Your task to perform on an android device: What's US dollar exchange rate against the Chinese Yuan? Image 0: 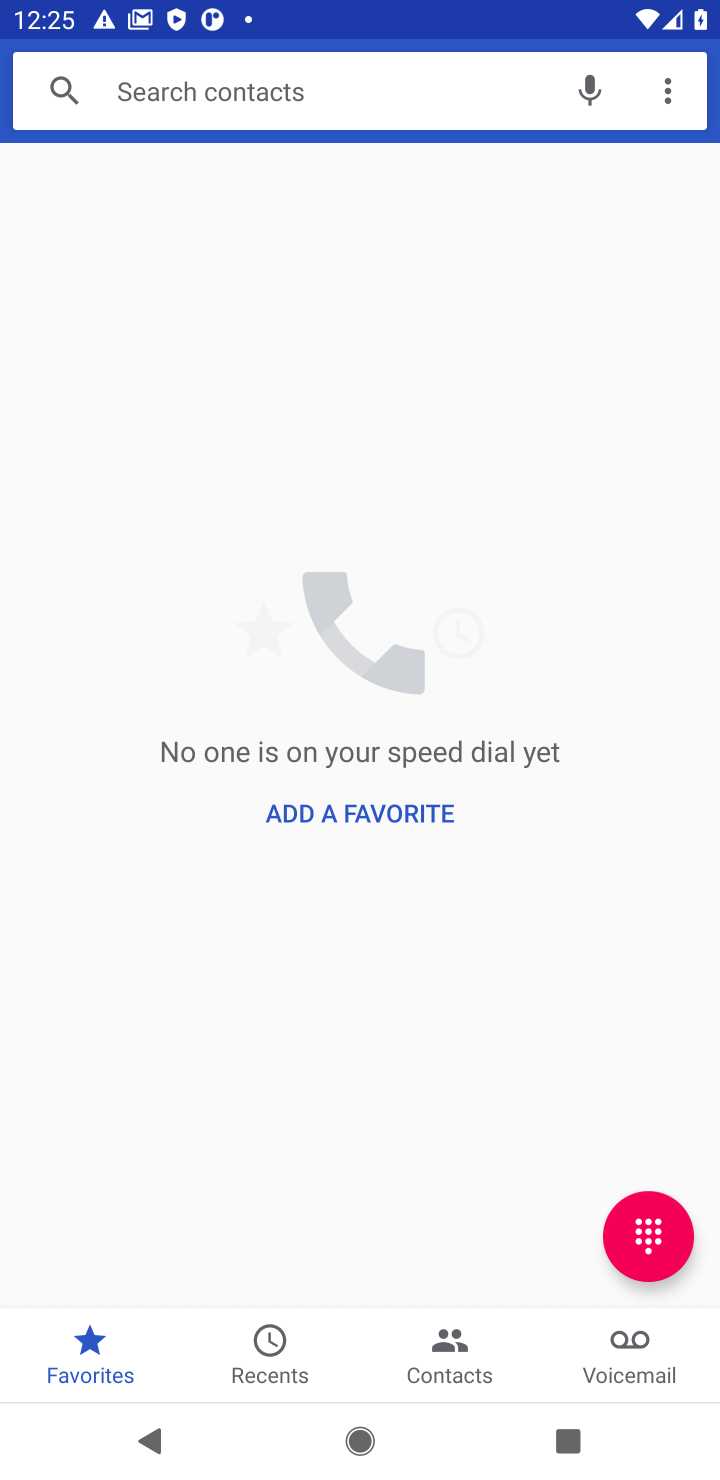
Step 0: press home button
Your task to perform on an android device: What's US dollar exchange rate against the Chinese Yuan? Image 1: 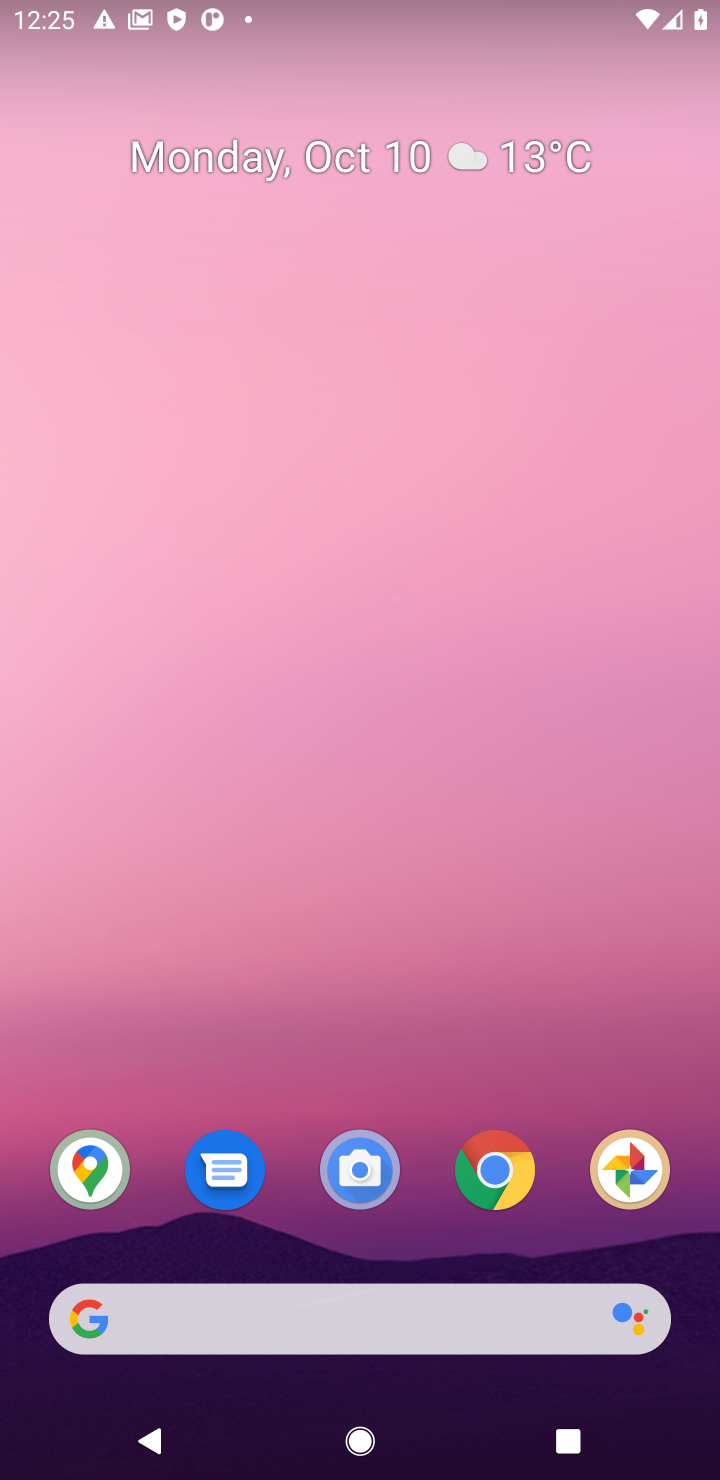
Step 1: click (497, 1177)
Your task to perform on an android device: What's US dollar exchange rate against the Chinese Yuan? Image 2: 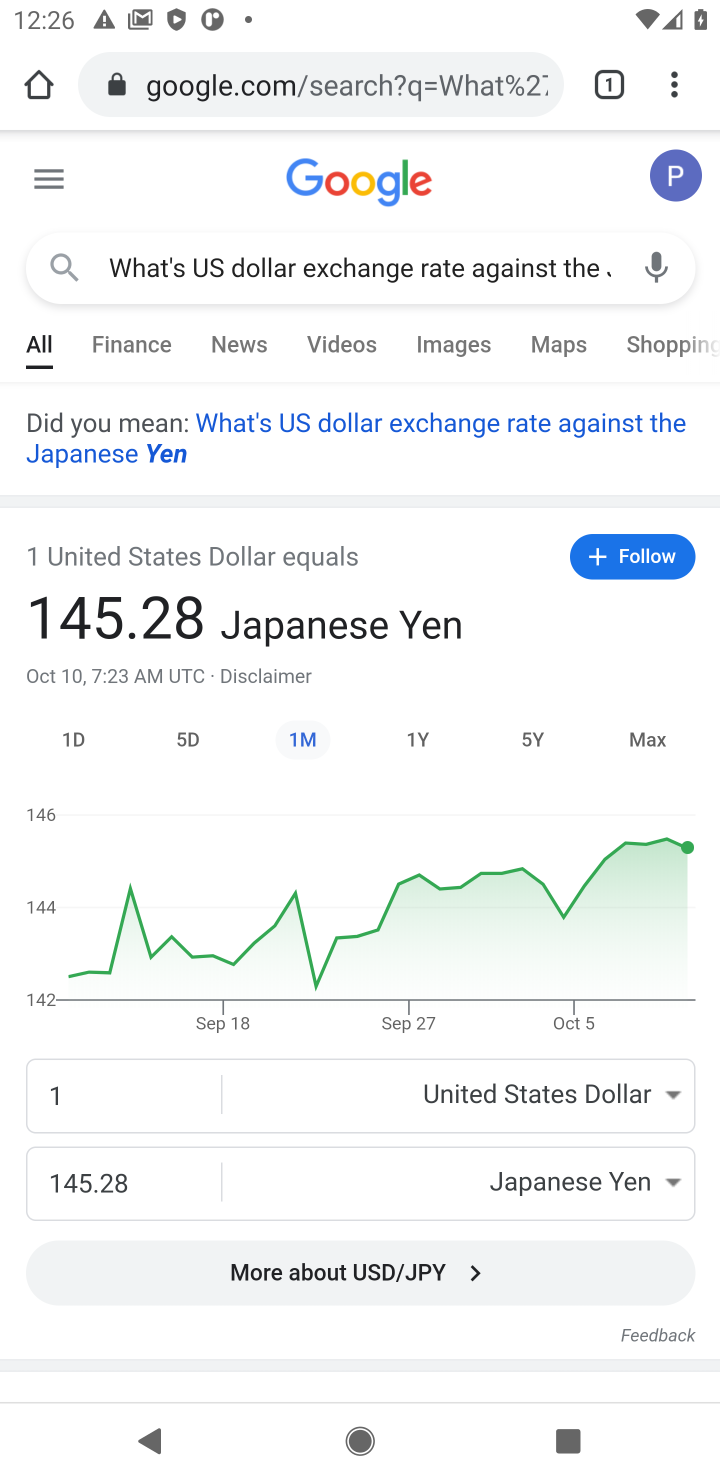
Step 2: click (646, 1172)
Your task to perform on an android device: What's US dollar exchange rate against the Chinese Yuan? Image 3: 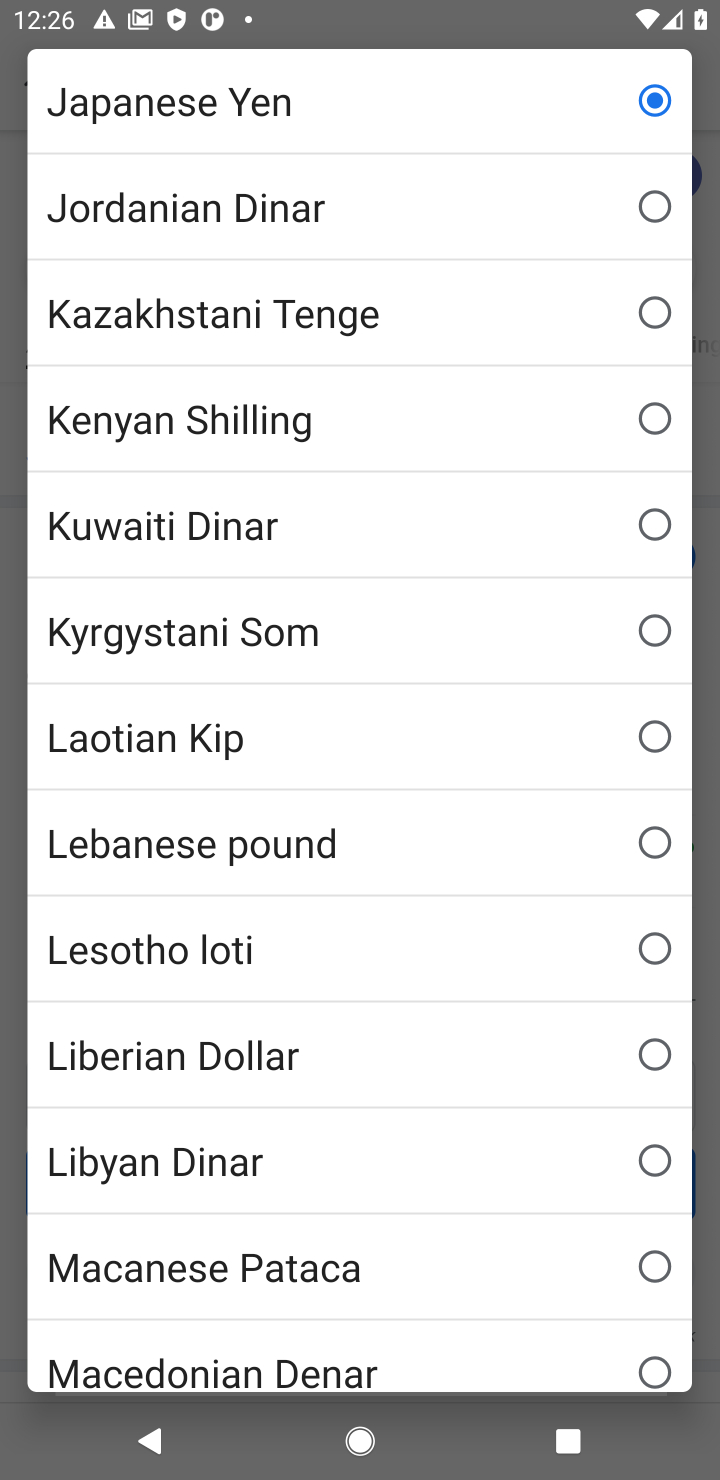
Step 3: drag from (286, 515) to (288, 956)
Your task to perform on an android device: What's US dollar exchange rate against the Chinese Yuan? Image 4: 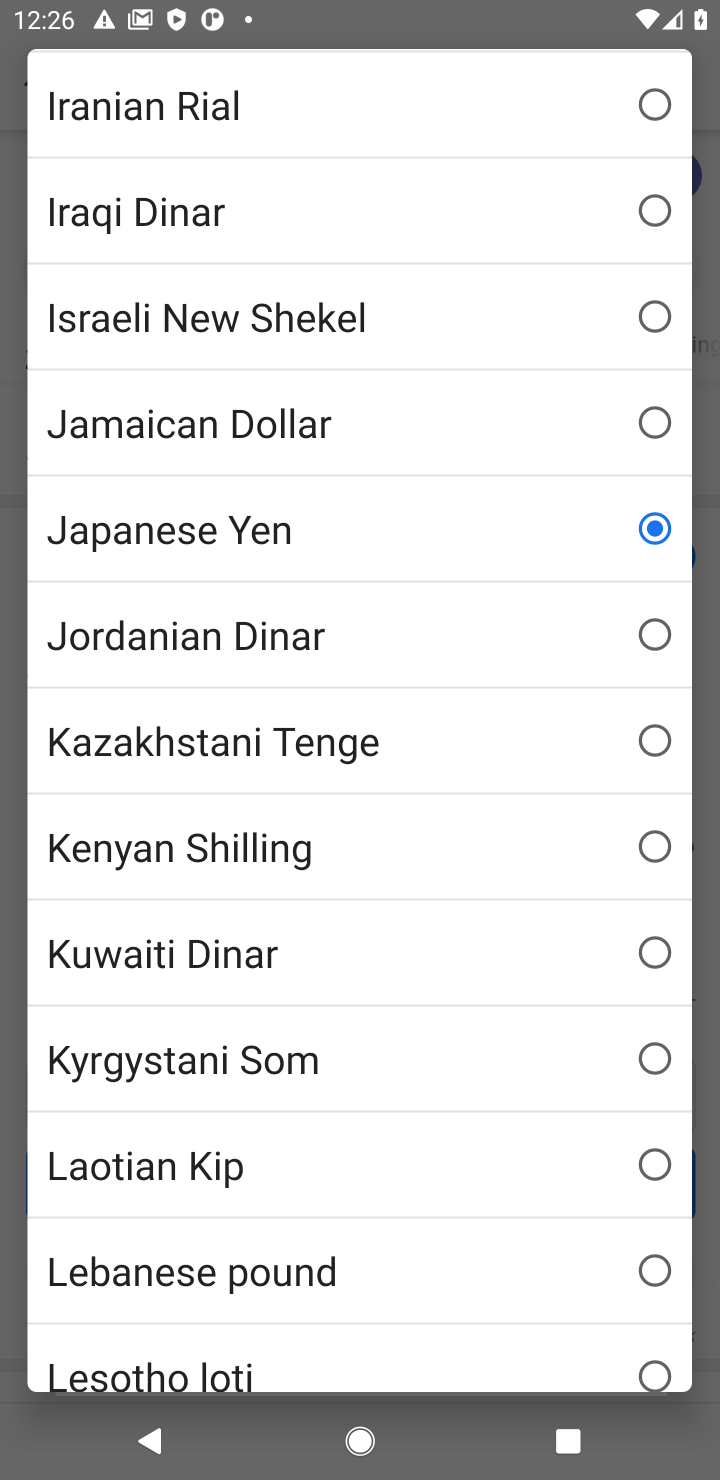
Step 4: drag from (281, 373) to (337, 864)
Your task to perform on an android device: What's US dollar exchange rate against the Chinese Yuan? Image 5: 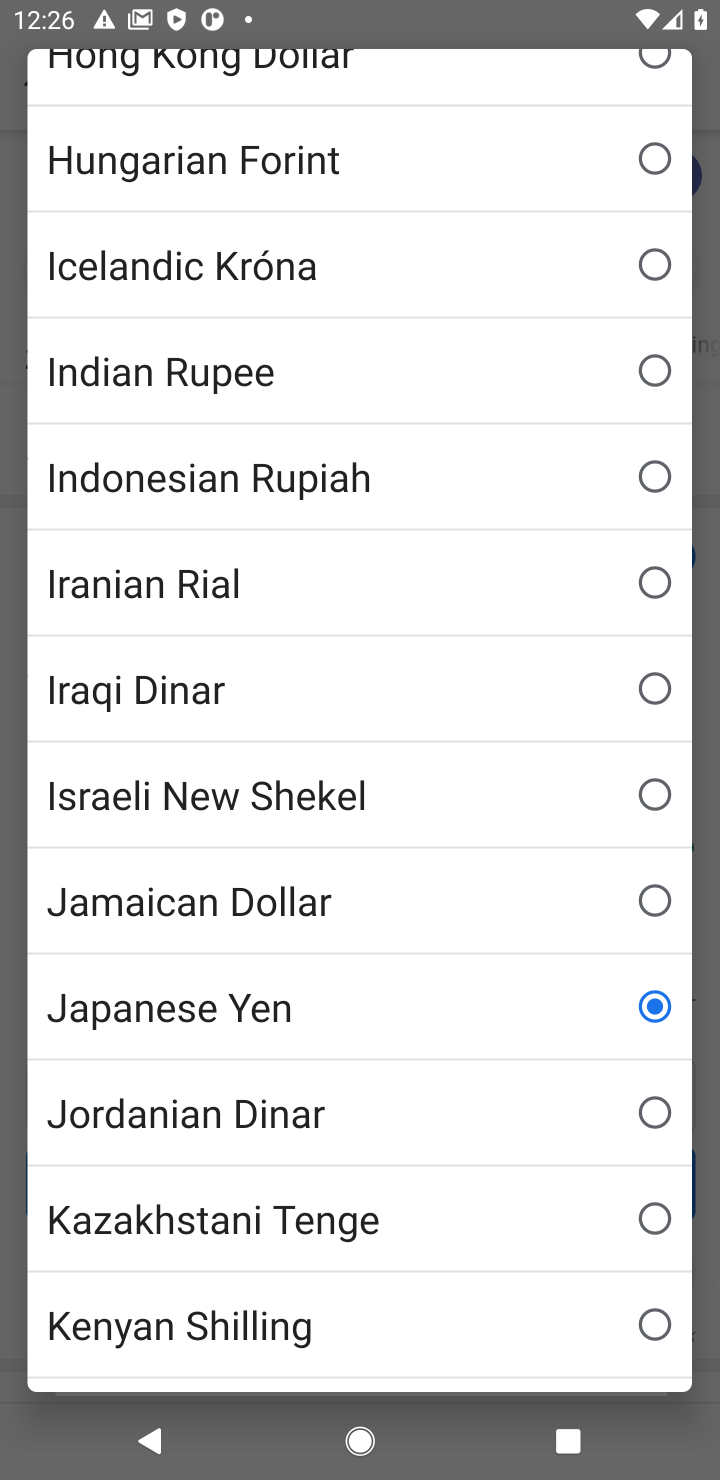
Step 5: drag from (457, 474) to (452, 874)
Your task to perform on an android device: What's US dollar exchange rate against the Chinese Yuan? Image 6: 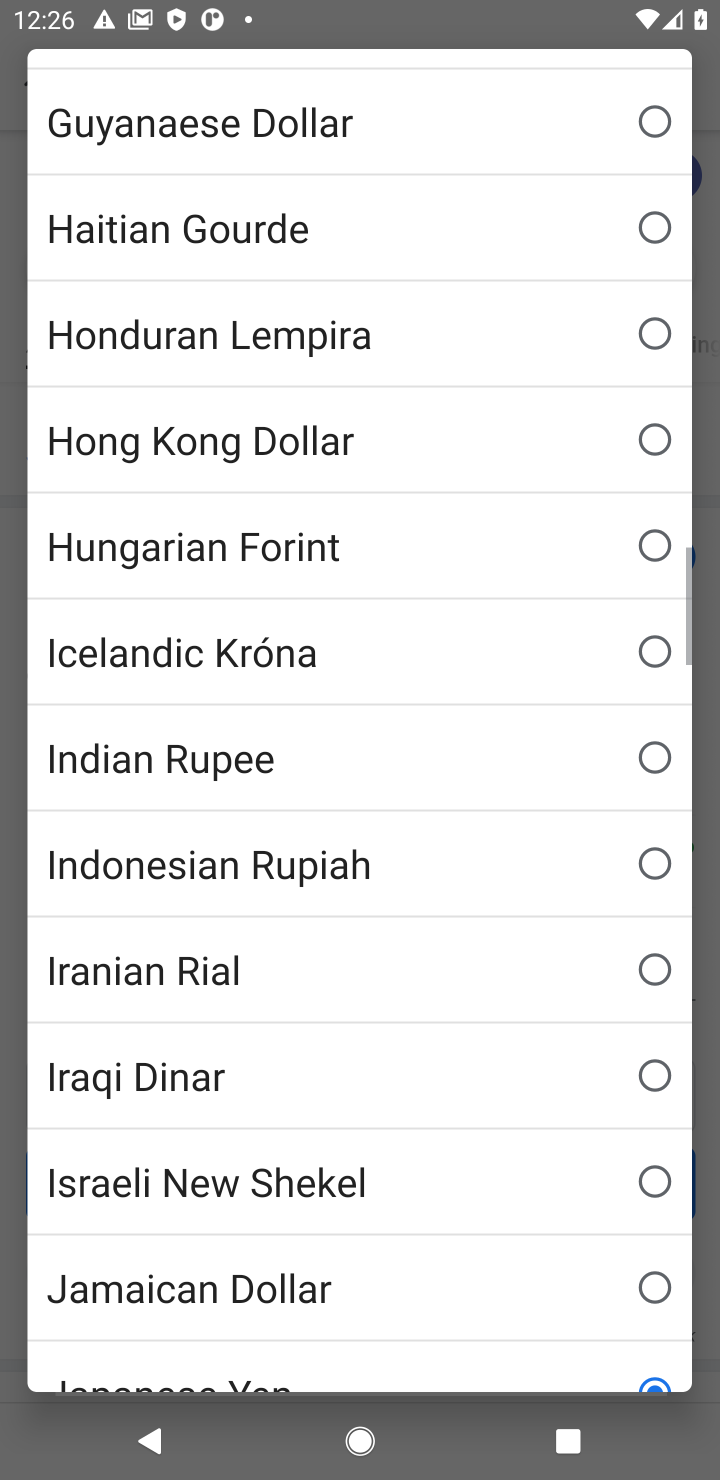
Step 6: drag from (376, 443) to (378, 650)
Your task to perform on an android device: What's US dollar exchange rate against the Chinese Yuan? Image 7: 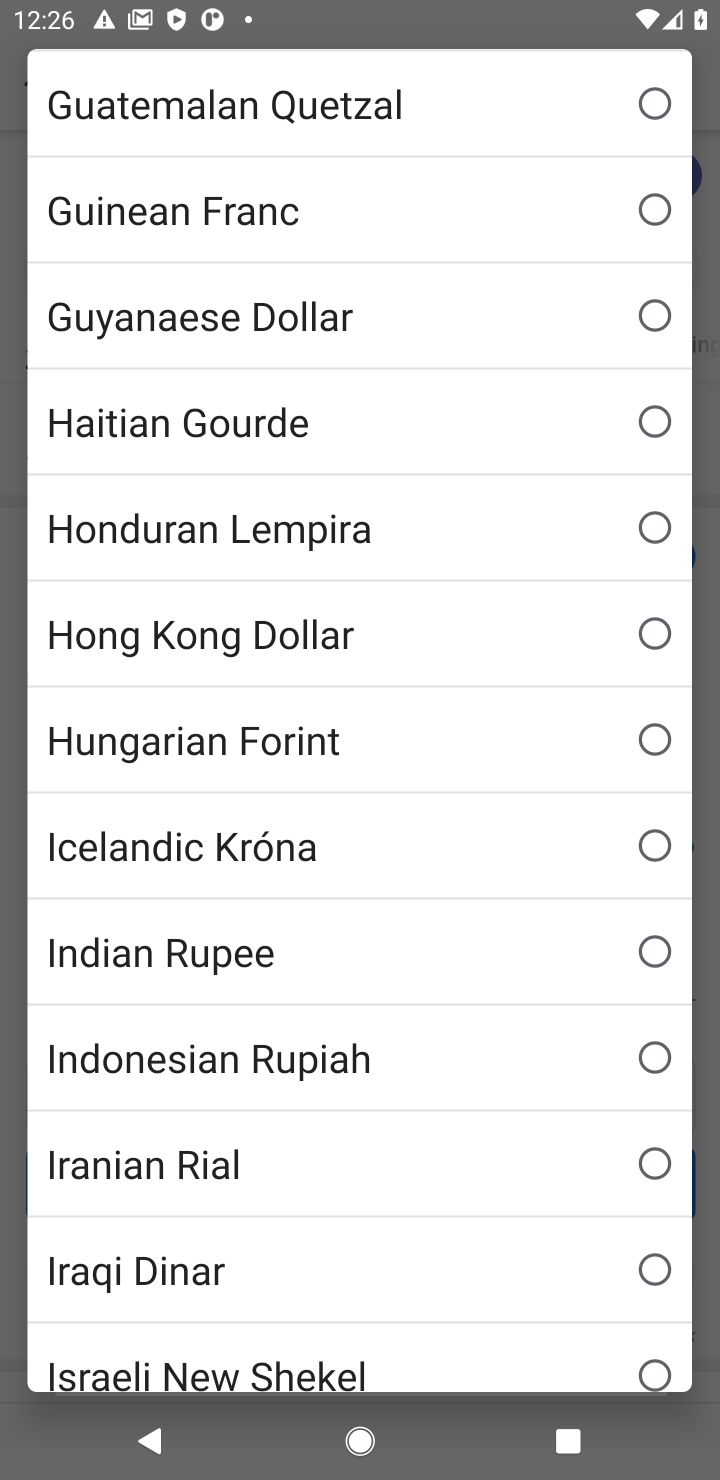
Step 7: drag from (280, 332) to (305, 660)
Your task to perform on an android device: What's US dollar exchange rate against the Chinese Yuan? Image 8: 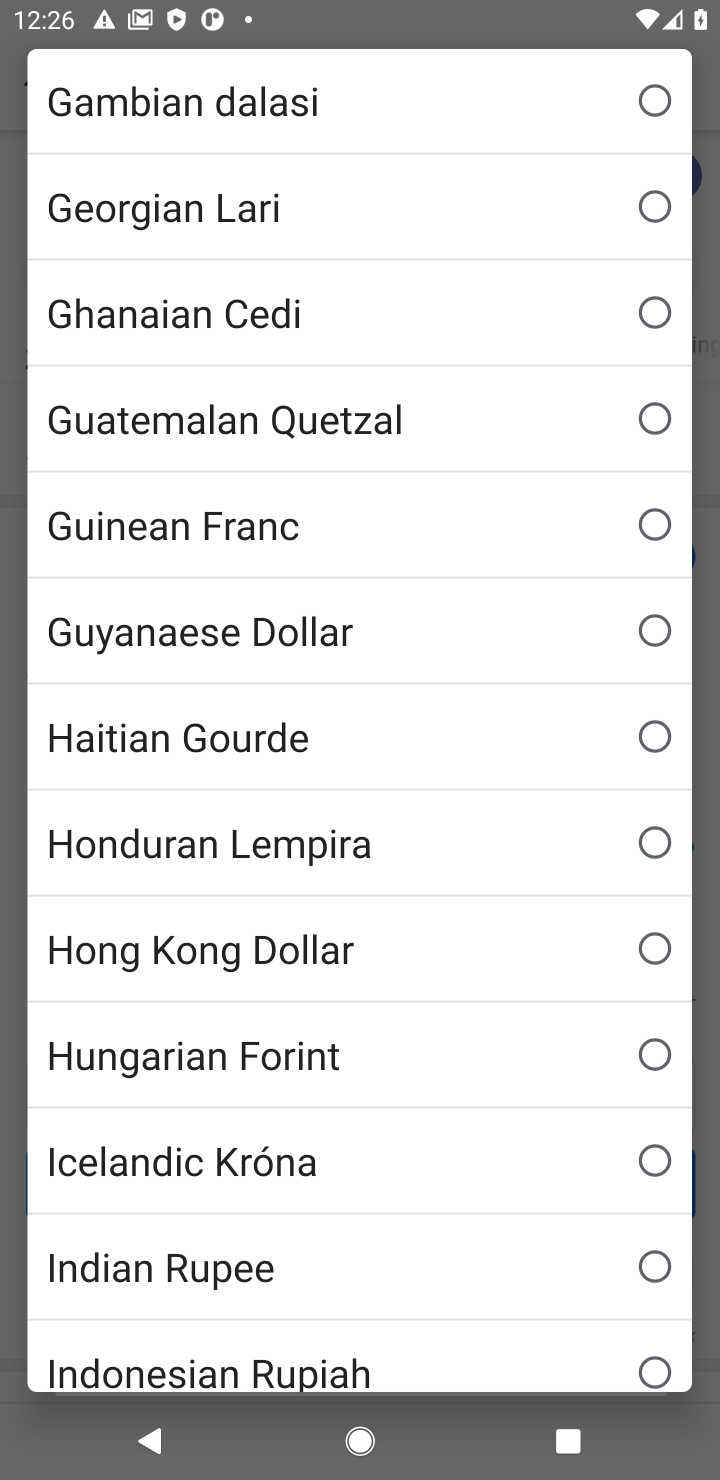
Step 8: drag from (339, 305) to (349, 698)
Your task to perform on an android device: What's US dollar exchange rate against the Chinese Yuan? Image 9: 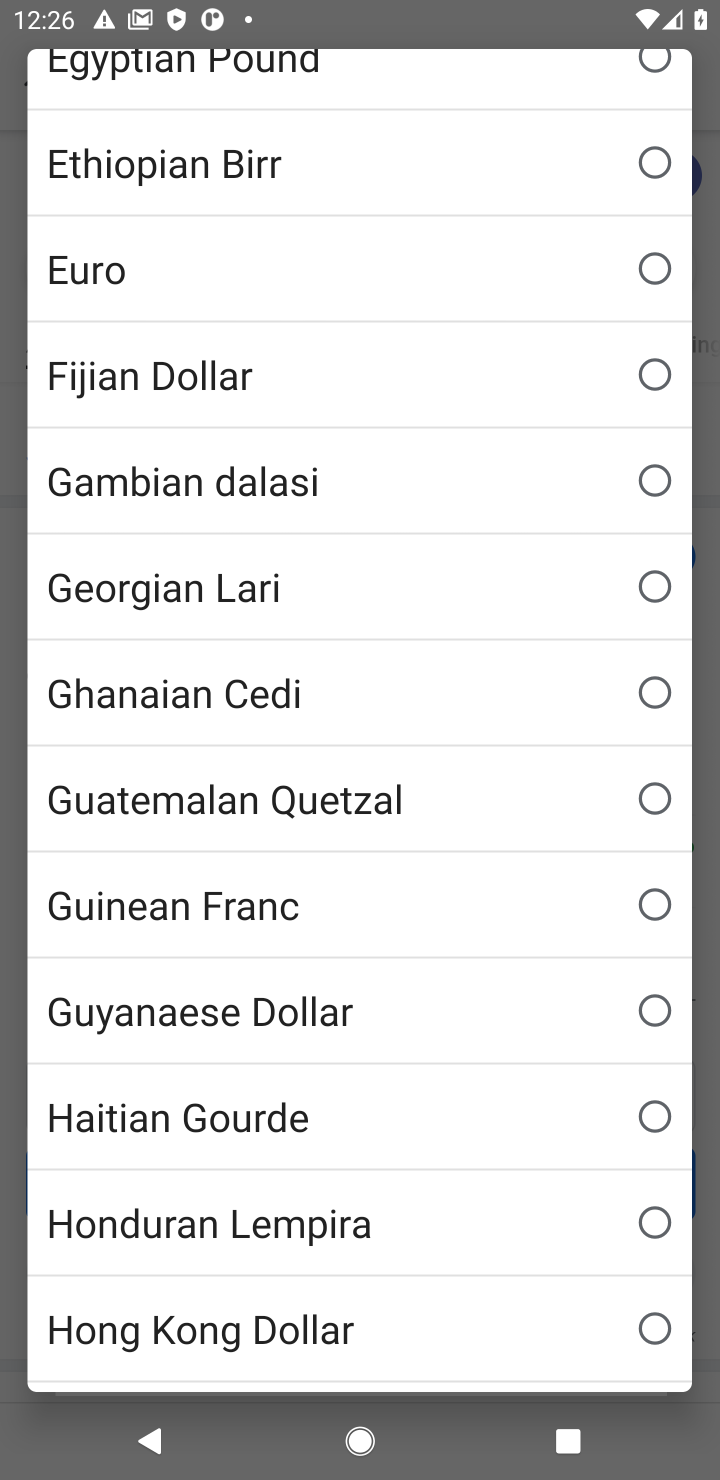
Step 9: drag from (306, 302) to (307, 739)
Your task to perform on an android device: What's US dollar exchange rate against the Chinese Yuan? Image 10: 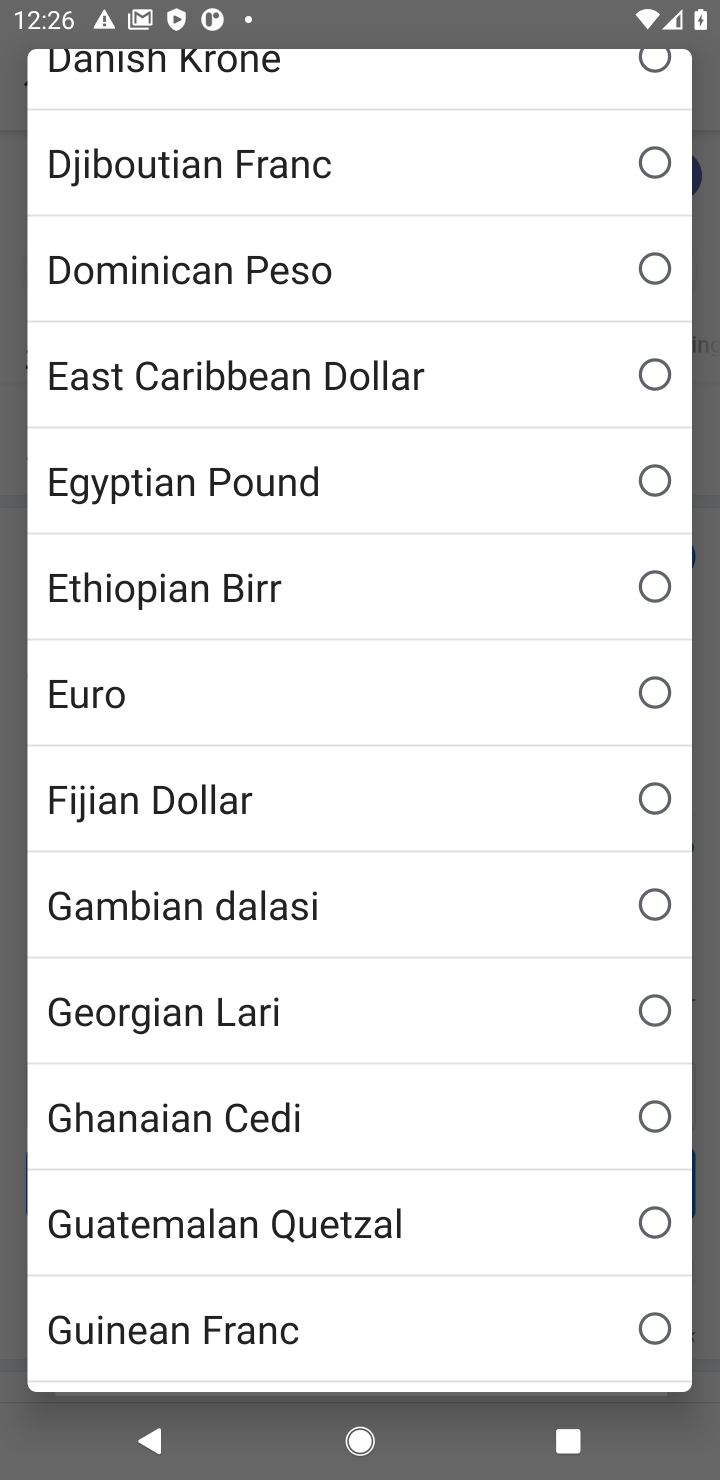
Step 10: drag from (367, 255) to (418, 610)
Your task to perform on an android device: What's US dollar exchange rate against the Chinese Yuan? Image 11: 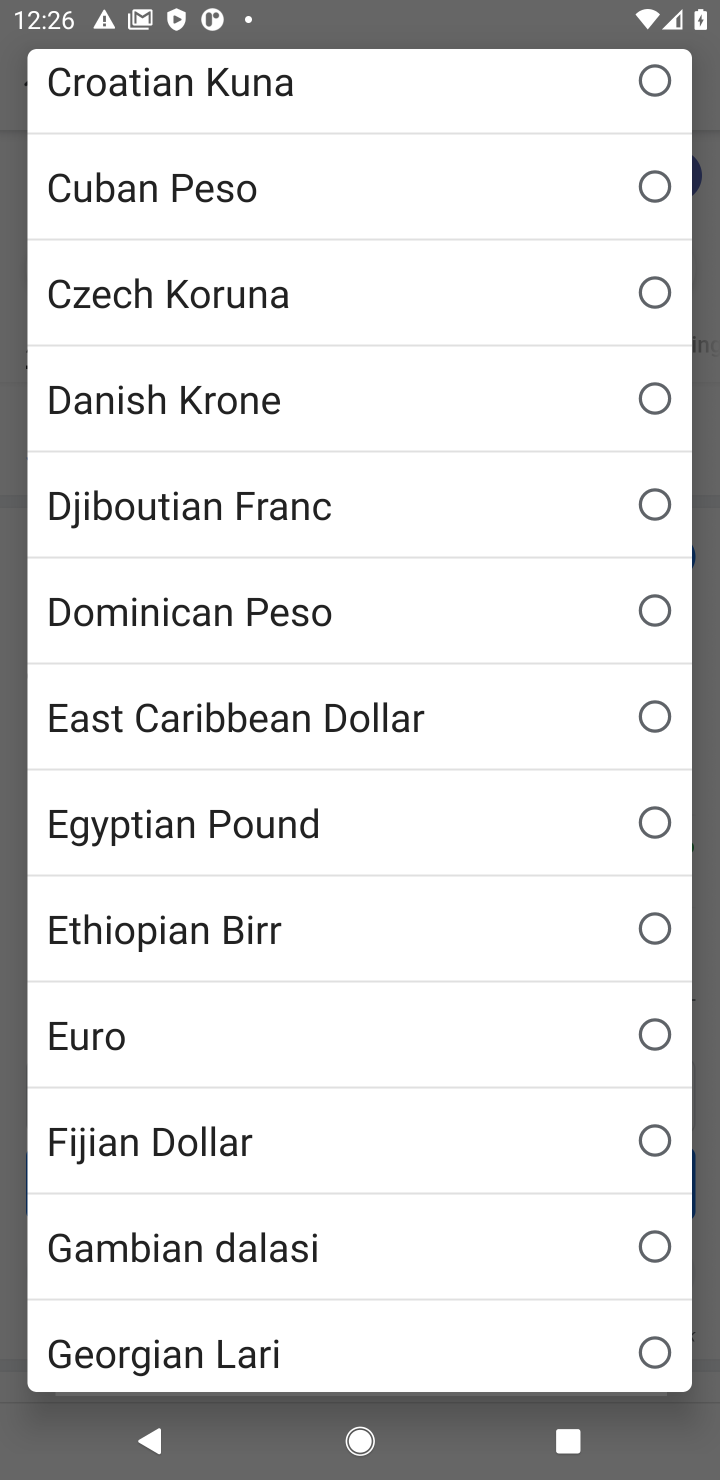
Step 11: drag from (406, 230) to (430, 667)
Your task to perform on an android device: What's US dollar exchange rate against the Chinese Yuan? Image 12: 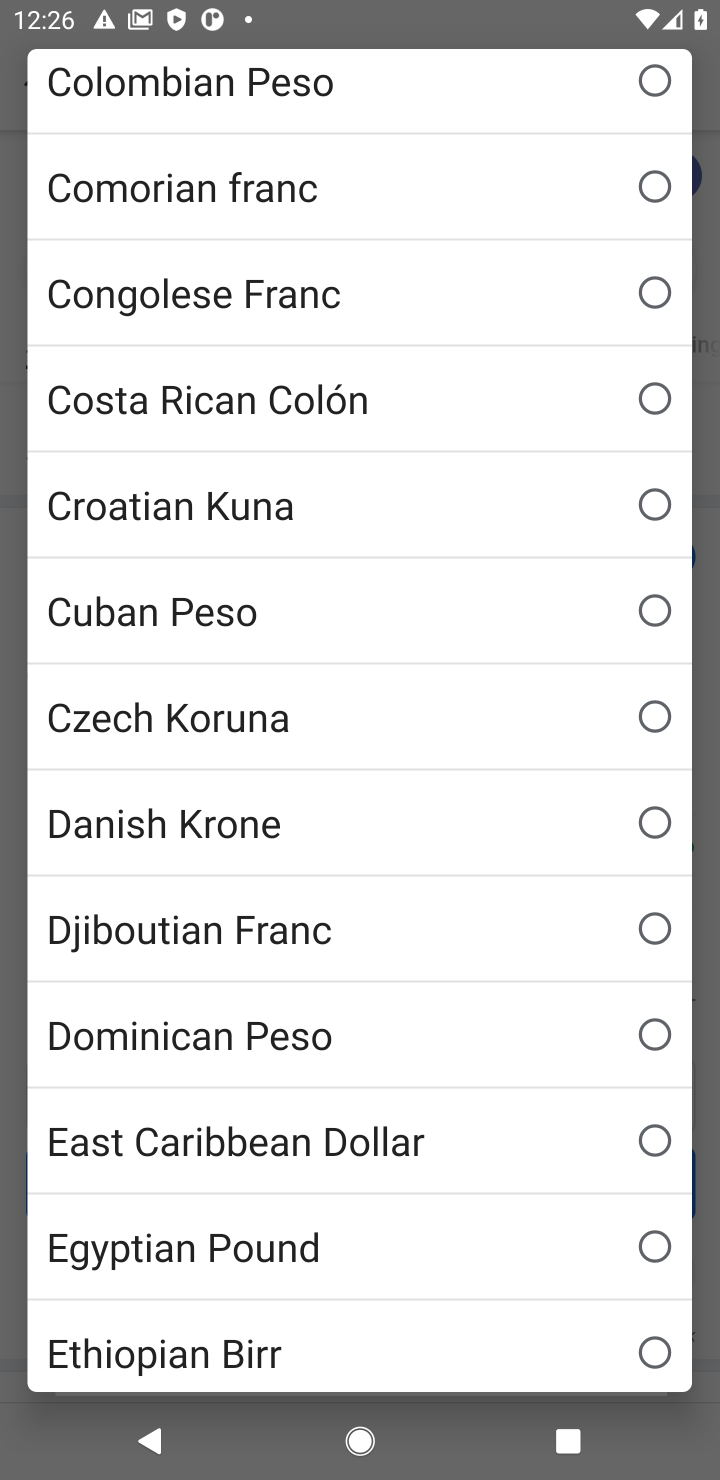
Step 12: drag from (413, 220) to (491, 719)
Your task to perform on an android device: What's US dollar exchange rate against the Chinese Yuan? Image 13: 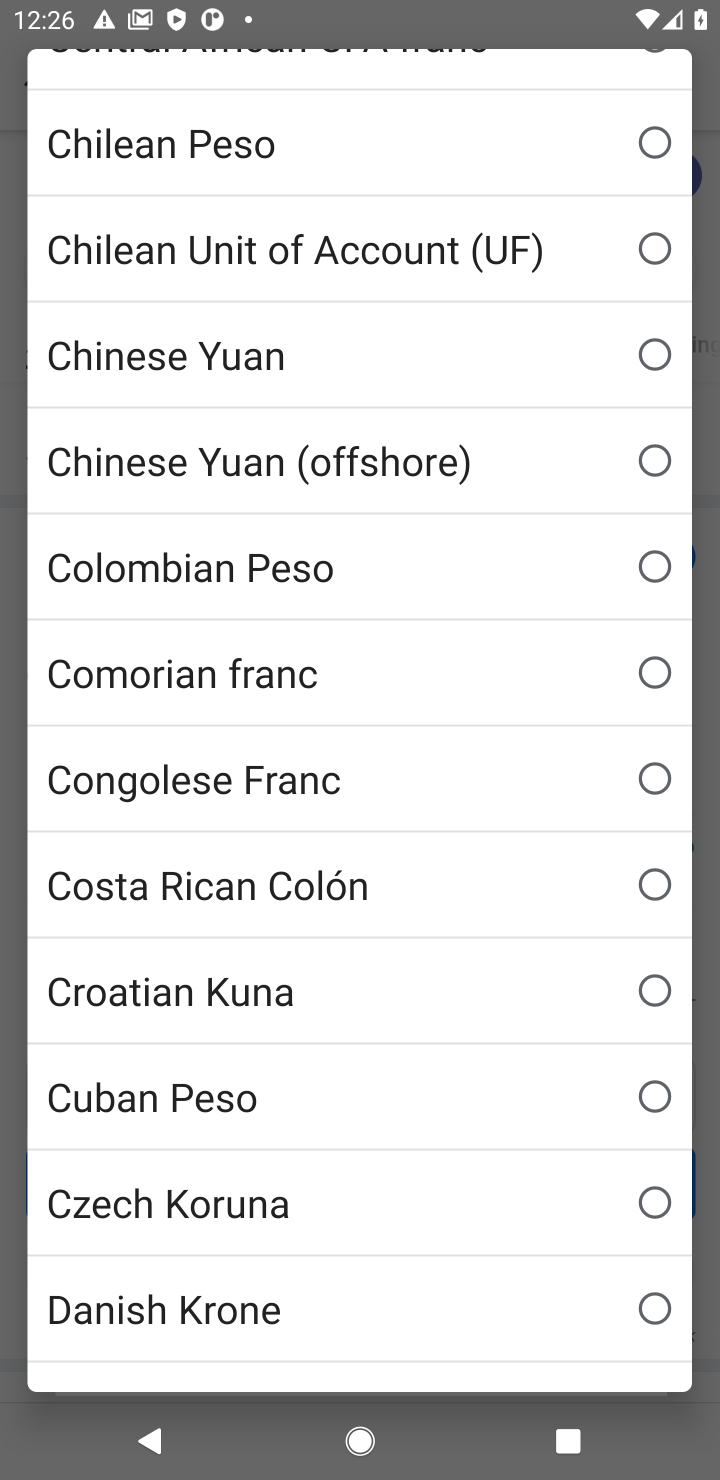
Step 13: drag from (408, 365) to (475, 813)
Your task to perform on an android device: What's US dollar exchange rate against the Chinese Yuan? Image 14: 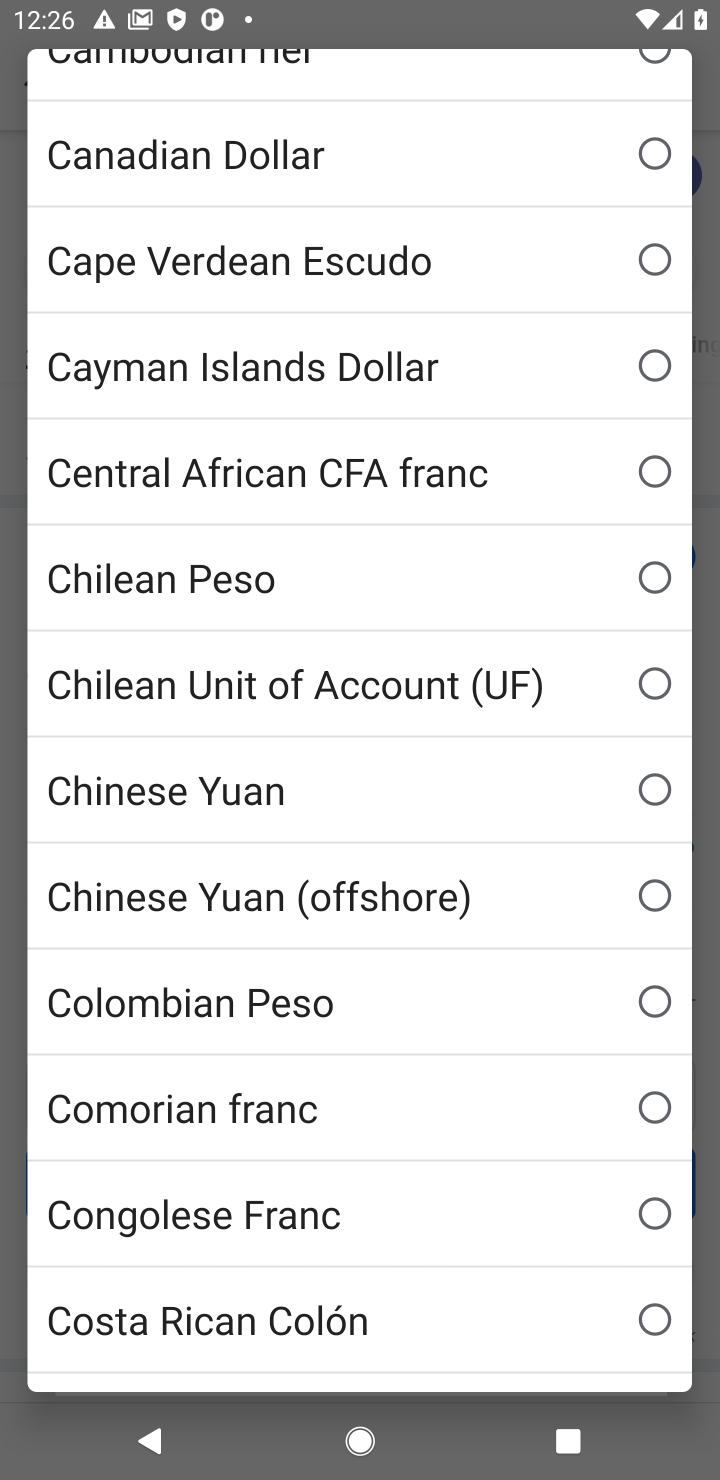
Step 14: click (659, 783)
Your task to perform on an android device: What's US dollar exchange rate against the Chinese Yuan? Image 15: 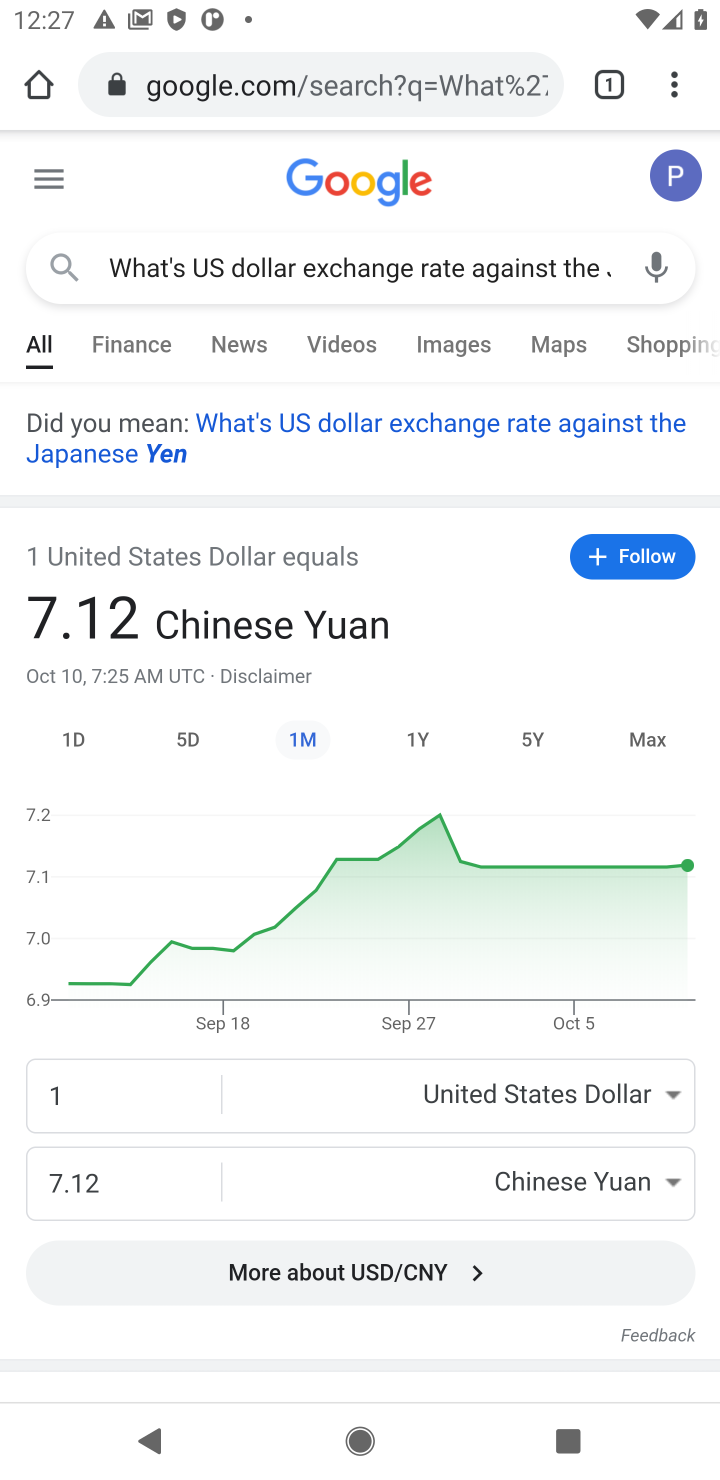
Step 15: task complete